Your task to perform on an android device: open sync settings in chrome Image 0: 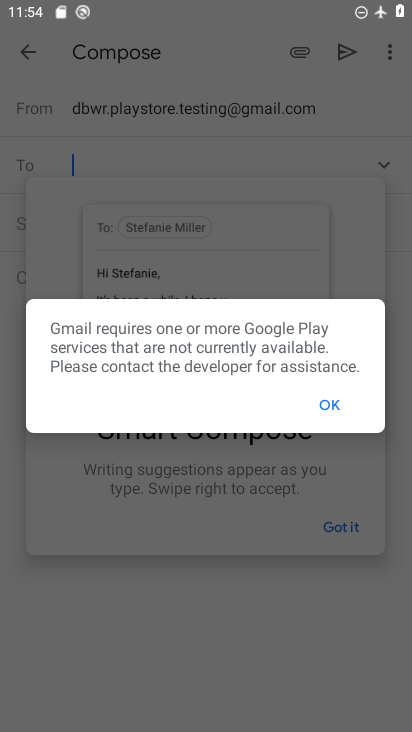
Step 0: press home button
Your task to perform on an android device: open sync settings in chrome Image 1: 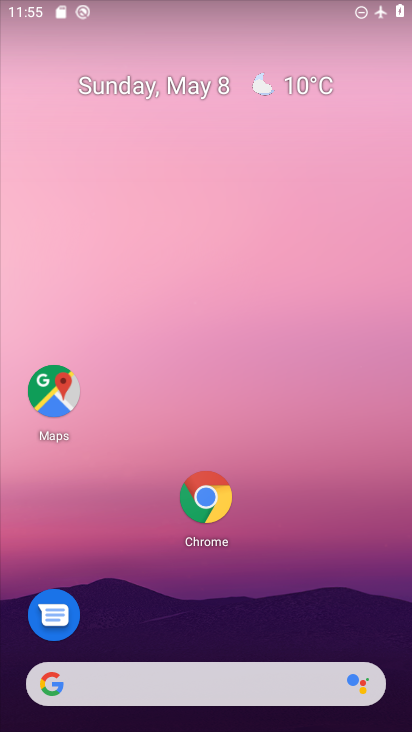
Step 1: drag from (323, 566) to (338, 53)
Your task to perform on an android device: open sync settings in chrome Image 2: 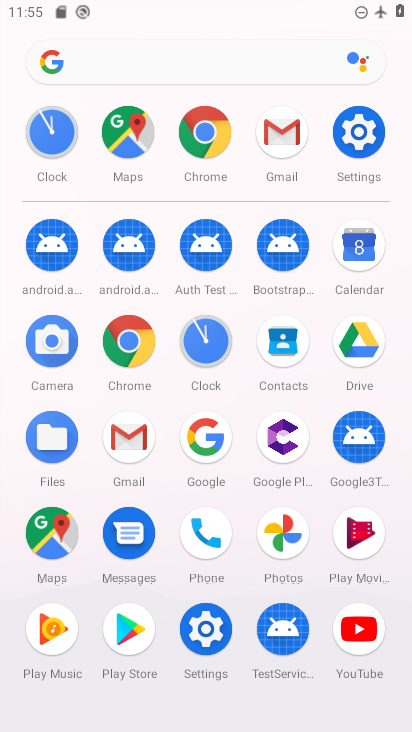
Step 2: click (127, 332)
Your task to perform on an android device: open sync settings in chrome Image 3: 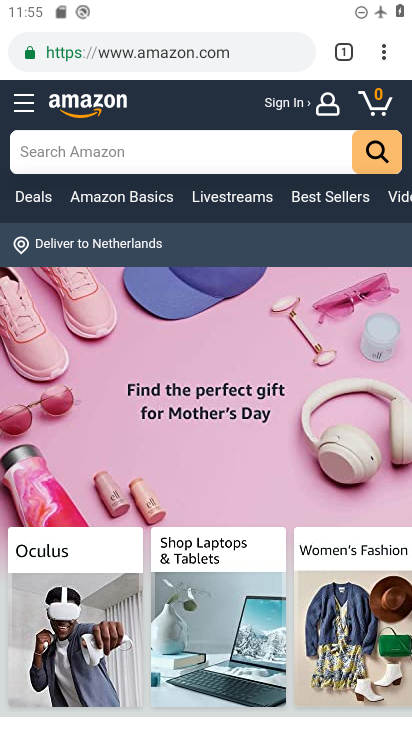
Step 3: drag from (383, 51) to (205, 582)
Your task to perform on an android device: open sync settings in chrome Image 4: 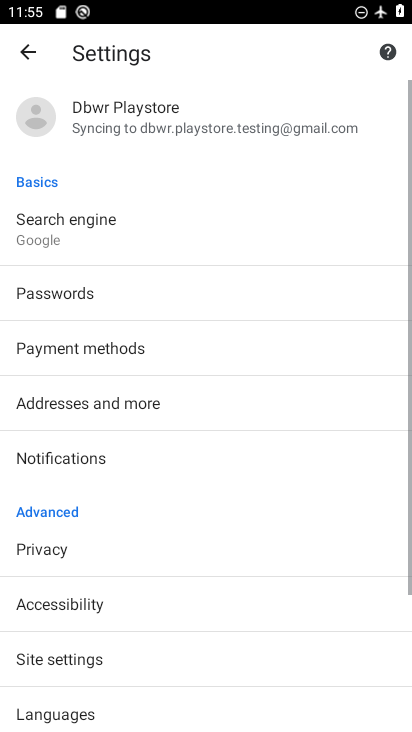
Step 4: click (178, 126)
Your task to perform on an android device: open sync settings in chrome Image 5: 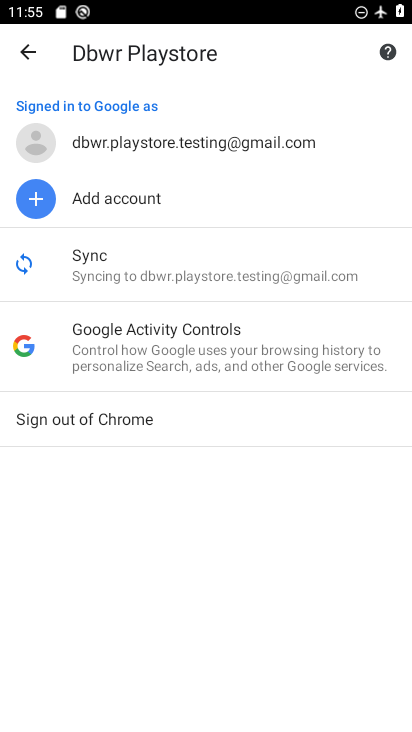
Step 5: click (98, 263)
Your task to perform on an android device: open sync settings in chrome Image 6: 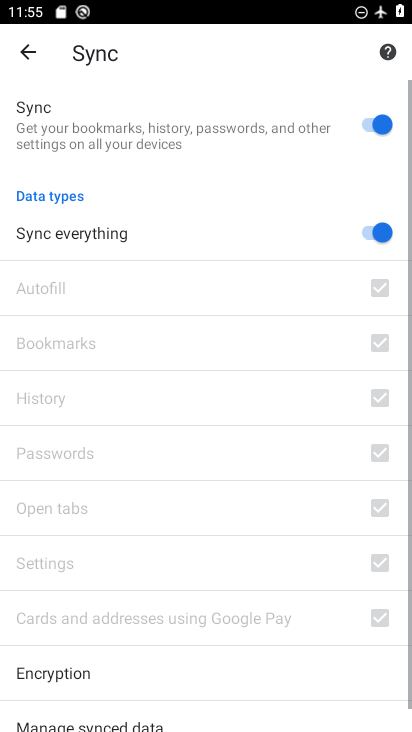
Step 6: task complete